Your task to perform on an android device: Is it going to rain today? Image 0: 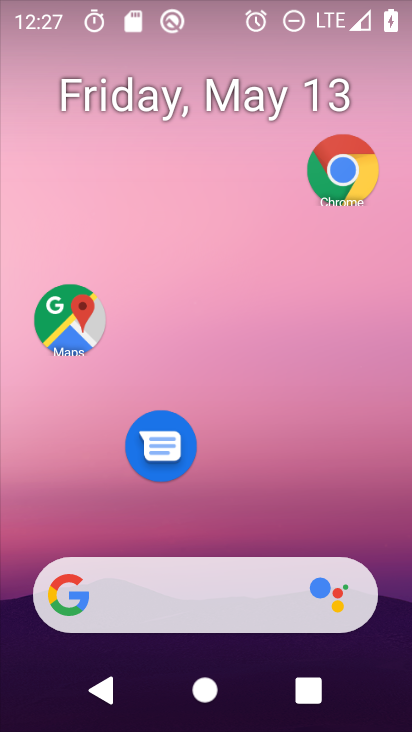
Step 0: drag from (329, 555) to (326, 0)
Your task to perform on an android device: Is it going to rain today? Image 1: 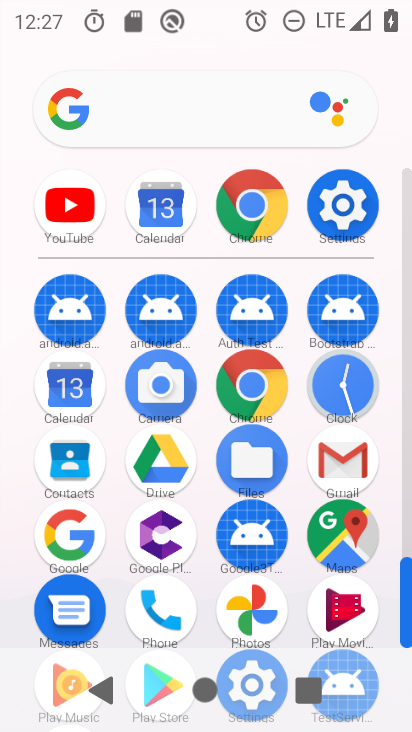
Step 1: click (246, 381)
Your task to perform on an android device: Is it going to rain today? Image 2: 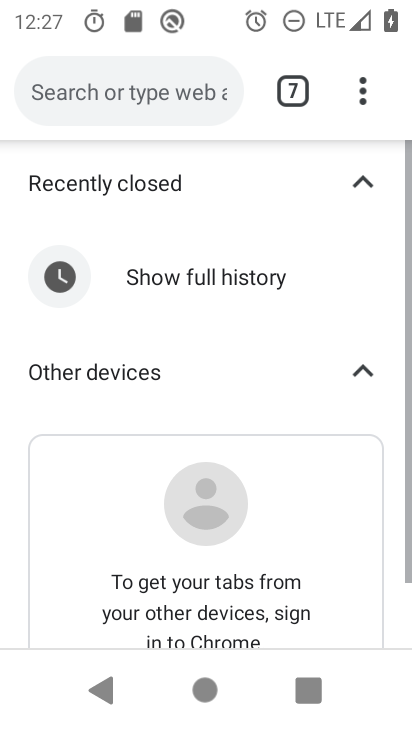
Step 2: click (213, 91)
Your task to perform on an android device: Is it going to rain today? Image 3: 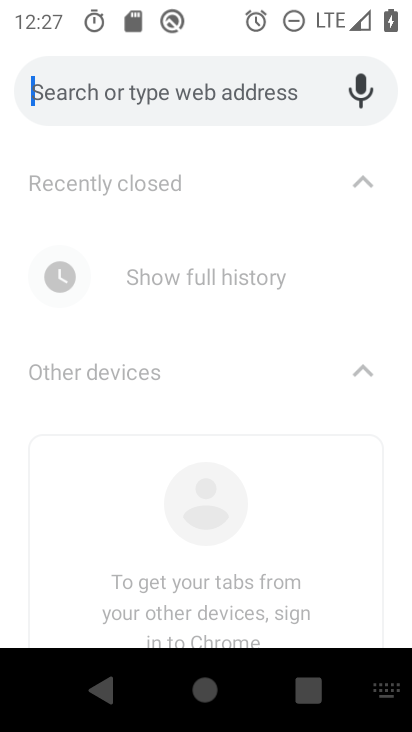
Step 3: type "is it going to rain today"
Your task to perform on an android device: Is it going to rain today? Image 4: 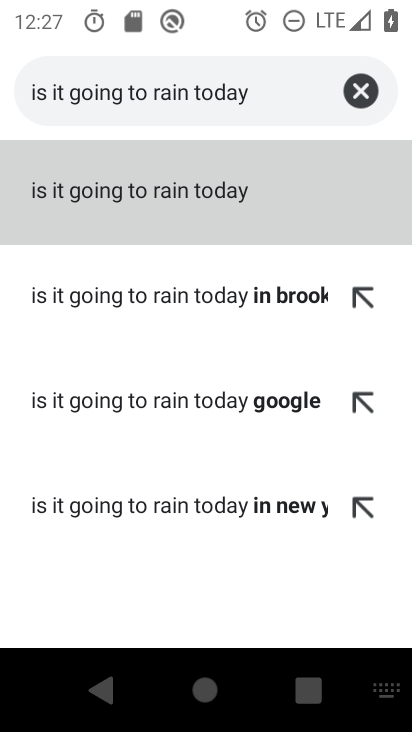
Step 4: click (205, 180)
Your task to perform on an android device: Is it going to rain today? Image 5: 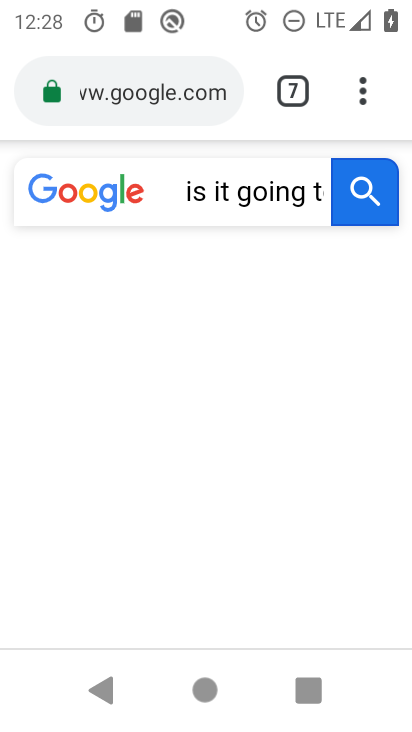
Step 5: task complete